Your task to perform on an android device: open chrome and create a bookmark for the current page Image 0: 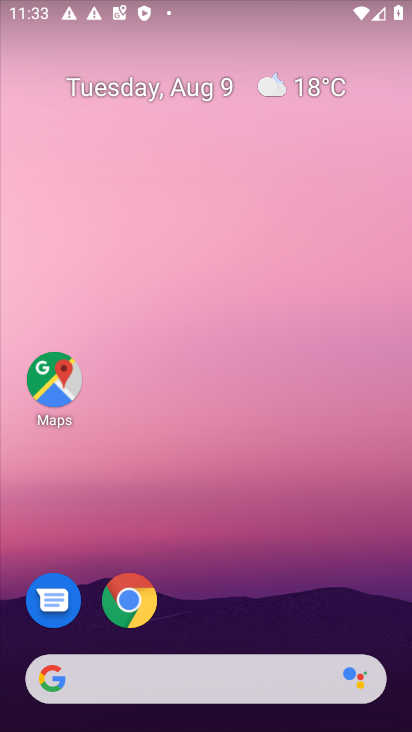
Step 0: click (121, 602)
Your task to perform on an android device: open chrome and create a bookmark for the current page Image 1: 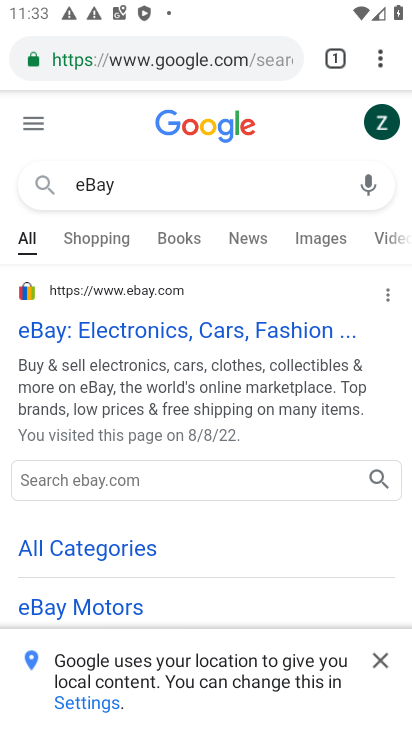
Step 1: click (376, 55)
Your task to perform on an android device: open chrome and create a bookmark for the current page Image 2: 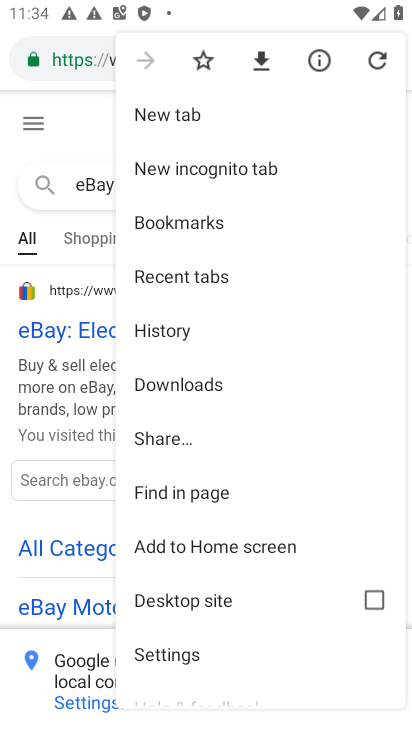
Step 2: click (200, 62)
Your task to perform on an android device: open chrome and create a bookmark for the current page Image 3: 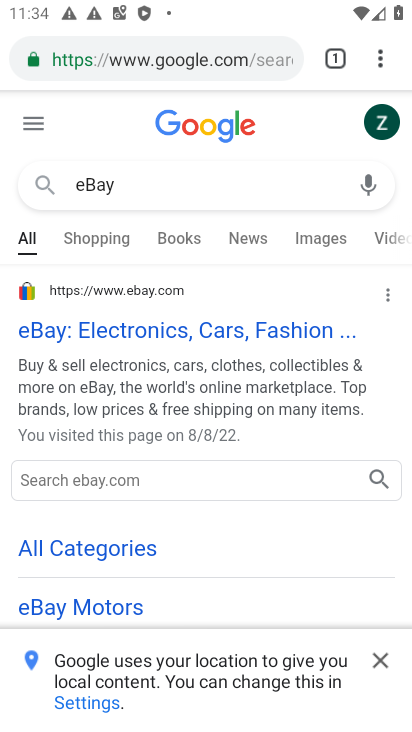
Step 3: task complete